Your task to perform on an android device: open app "ZOOM Cloud Meetings" (install if not already installed) and go to login screen Image 0: 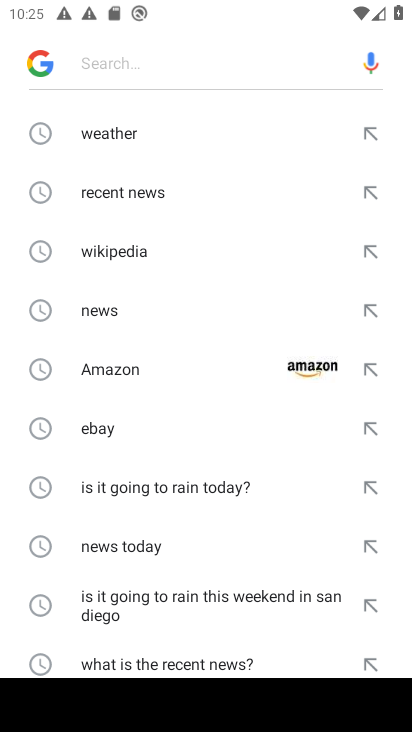
Step 0: press home button
Your task to perform on an android device: open app "ZOOM Cloud Meetings" (install if not already installed) and go to login screen Image 1: 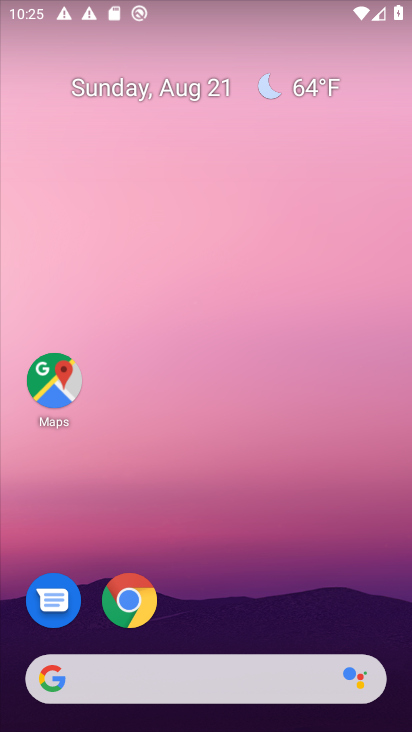
Step 1: drag from (207, 618) to (295, 5)
Your task to perform on an android device: open app "ZOOM Cloud Meetings" (install if not already installed) and go to login screen Image 2: 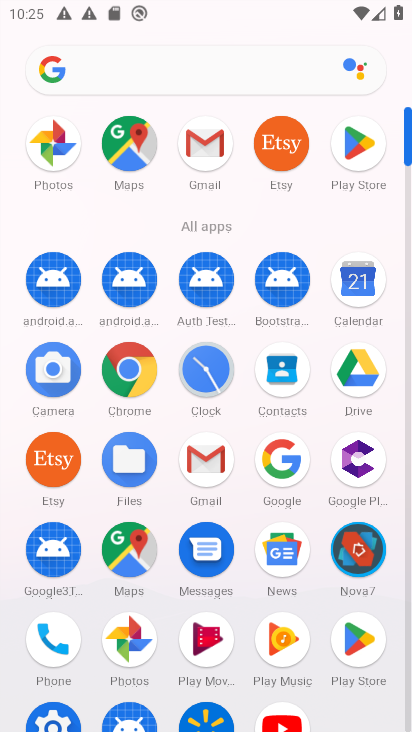
Step 2: click (361, 157)
Your task to perform on an android device: open app "ZOOM Cloud Meetings" (install if not already installed) and go to login screen Image 3: 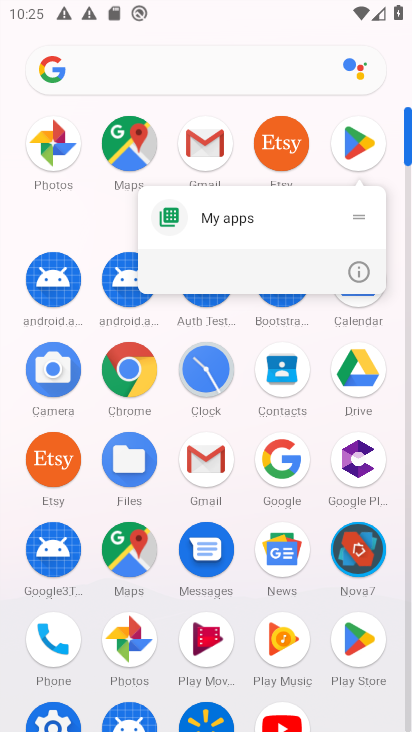
Step 3: click (370, 146)
Your task to perform on an android device: open app "ZOOM Cloud Meetings" (install if not already installed) and go to login screen Image 4: 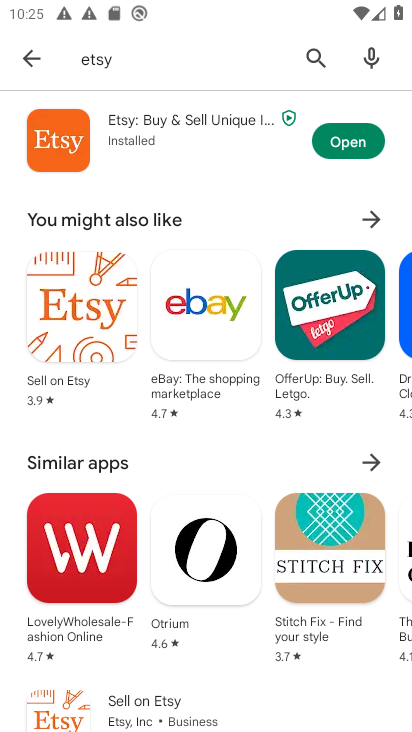
Step 4: click (156, 77)
Your task to perform on an android device: open app "ZOOM Cloud Meetings" (install if not already installed) and go to login screen Image 5: 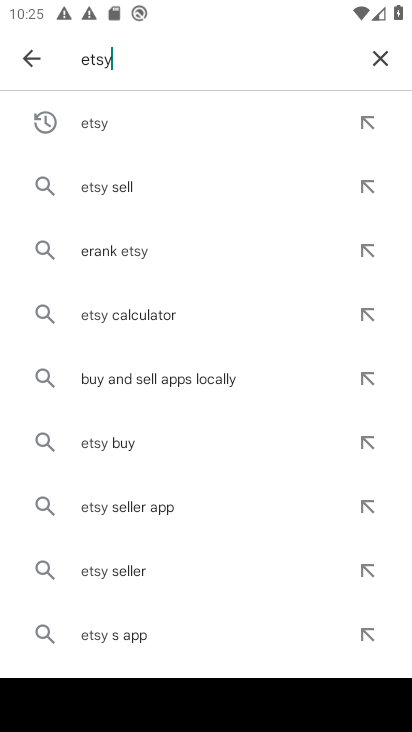
Step 5: click (374, 56)
Your task to perform on an android device: open app "ZOOM Cloud Meetings" (install if not already installed) and go to login screen Image 6: 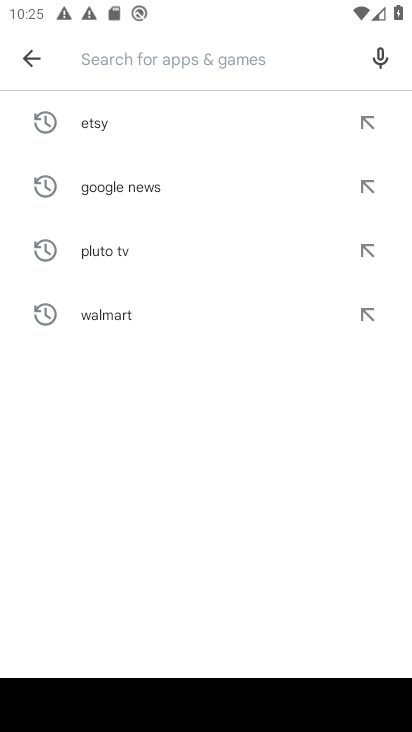
Step 6: type "Zoom cloud meeting"
Your task to perform on an android device: open app "ZOOM Cloud Meetings" (install if not already installed) and go to login screen Image 7: 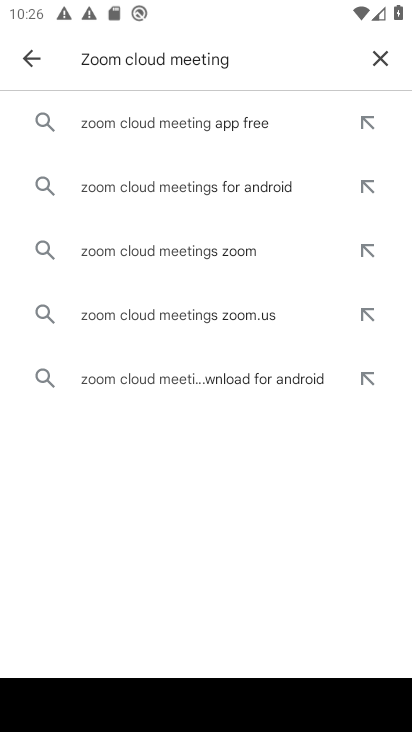
Step 7: click (118, 179)
Your task to perform on an android device: open app "ZOOM Cloud Meetings" (install if not already installed) and go to login screen Image 8: 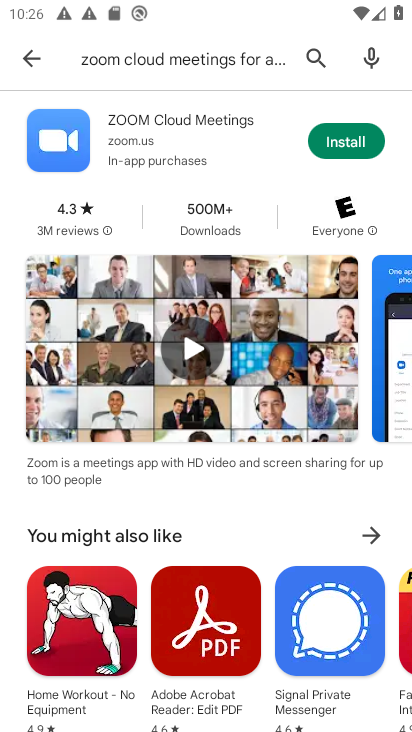
Step 8: click (344, 147)
Your task to perform on an android device: open app "ZOOM Cloud Meetings" (install if not already installed) and go to login screen Image 9: 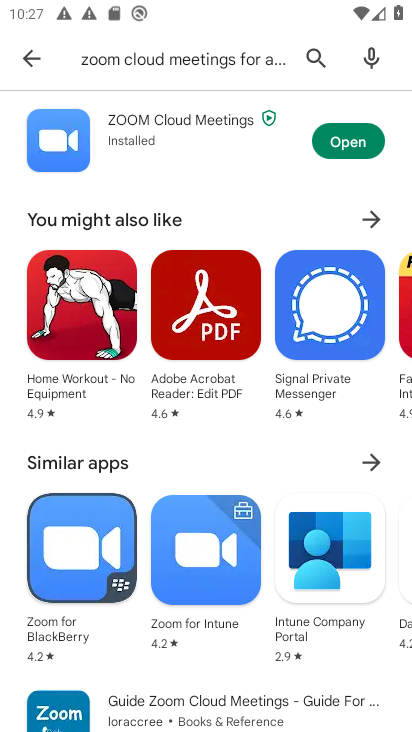
Step 9: click (334, 134)
Your task to perform on an android device: open app "ZOOM Cloud Meetings" (install if not already installed) and go to login screen Image 10: 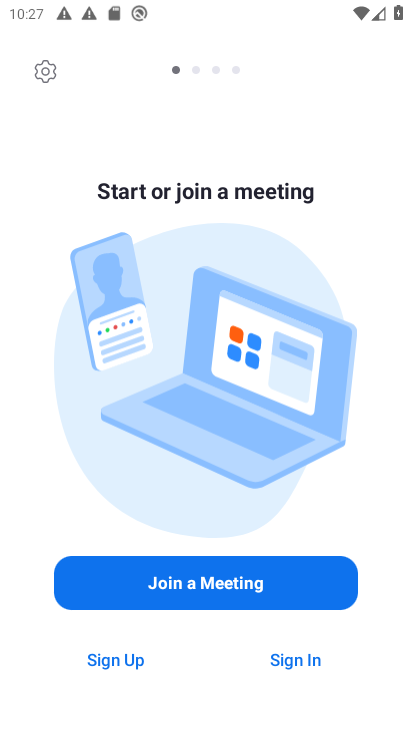
Step 10: click (292, 656)
Your task to perform on an android device: open app "ZOOM Cloud Meetings" (install if not already installed) and go to login screen Image 11: 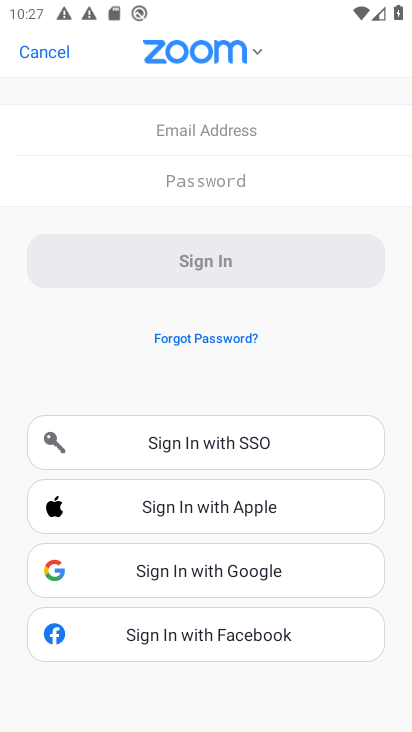
Step 11: task complete